Your task to perform on an android device: turn on location history Image 0: 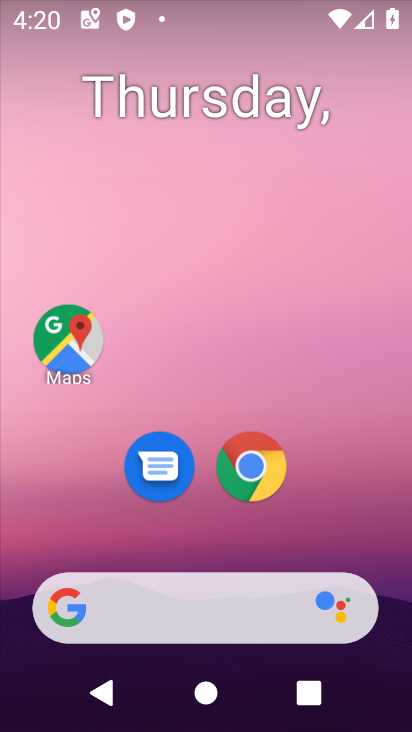
Step 0: drag from (370, 479) to (295, 15)
Your task to perform on an android device: turn on location history Image 1: 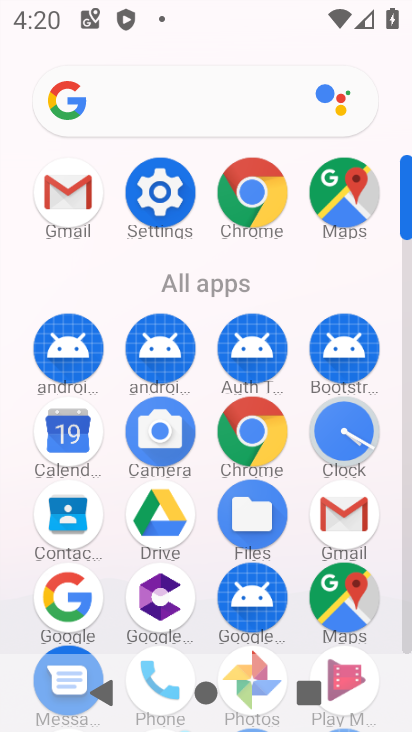
Step 1: click (178, 177)
Your task to perform on an android device: turn on location history Image 2: 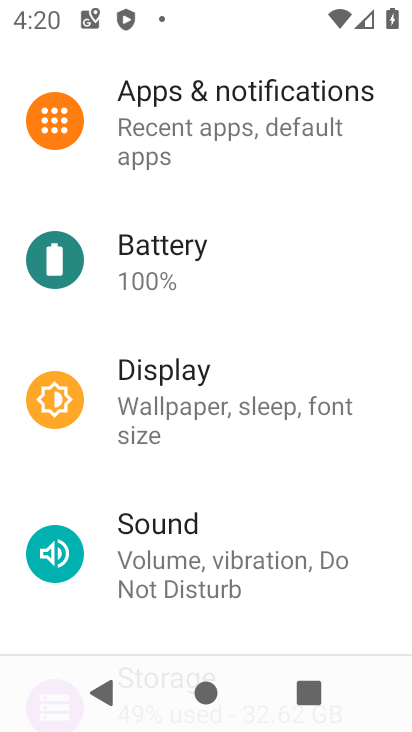
Step 2: drag from (219, 560) to (266, 140)
Your task to perform on an android device: turn on location history Image 3: 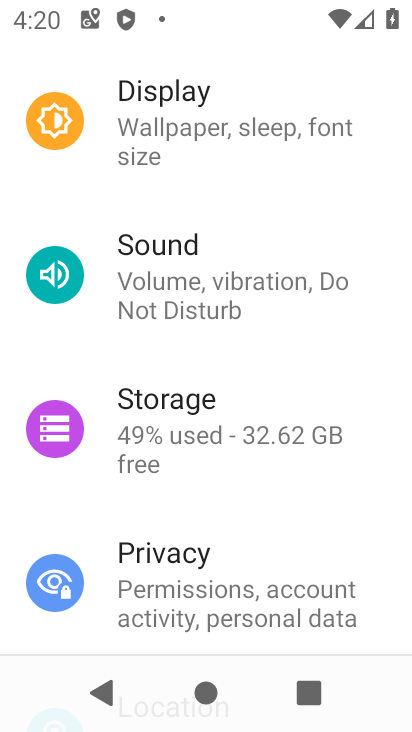
Step 3: drag from (247, 548) to (231, 179)
Your task to perform on an android device: turn on location history Image 4: 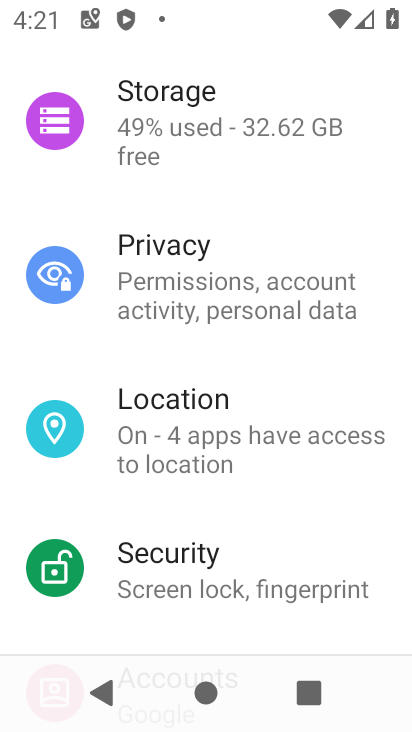
Step 4: click (204, 410)
Your task to perform on an android device: turn on location history Image 5: 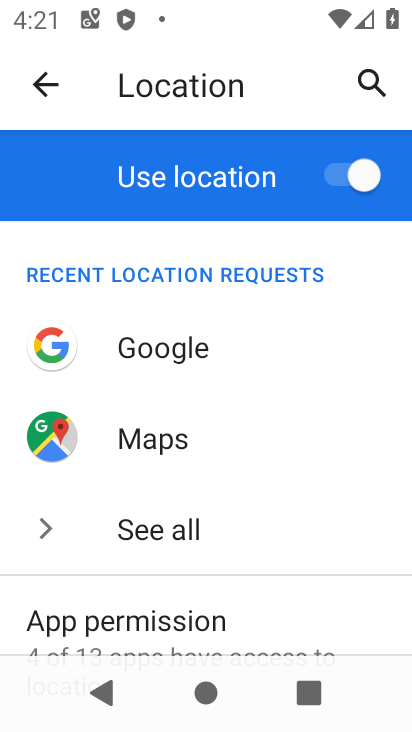
Step 5: drag from (188, 534) to (164, 218)
Your task to perform on an android device: turn on location history Image 6: 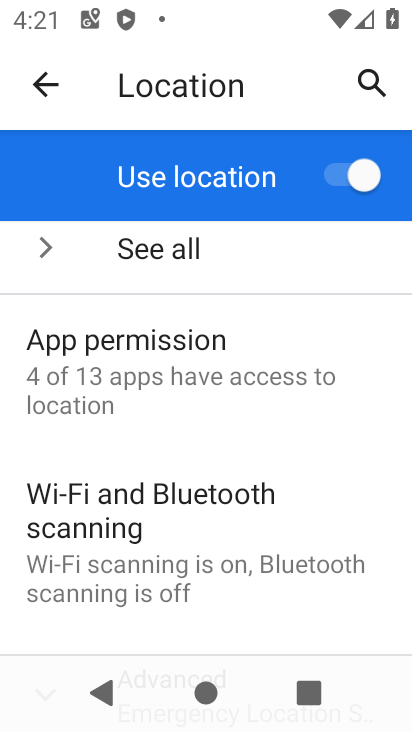
Step 6: drag from (239, 536) to (181, 202)
Your task to perform on an android device: turn on location history Image 7: 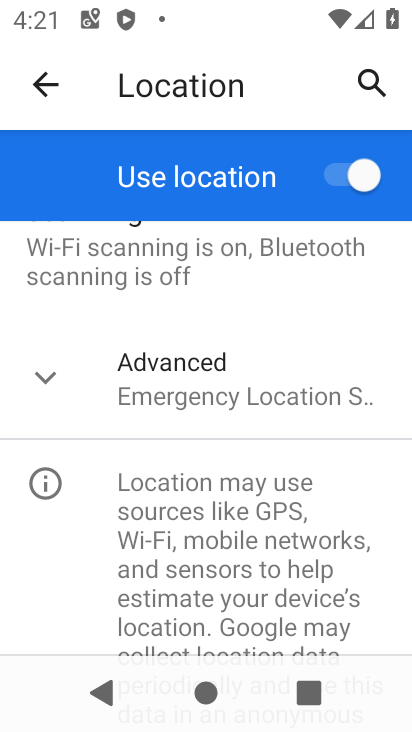
Step 7: drag from (253, 382) to (297, 645)
Your task to perform on an android device: turn on location history Image 8: 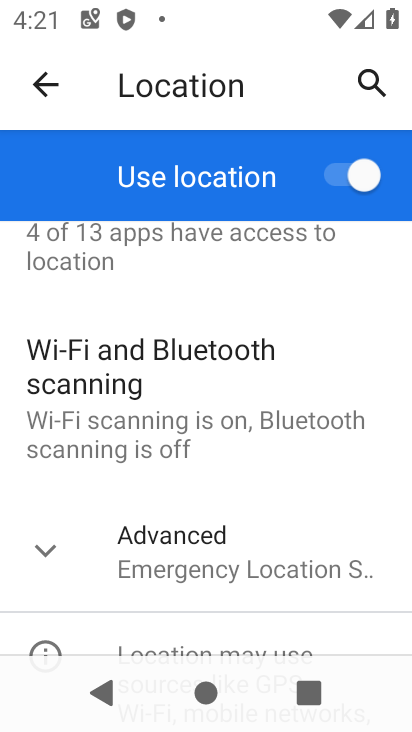
Step 8: drag from (200, 341) to (241, 628)
Your task to perform on an android device: turn on location history Image 9: 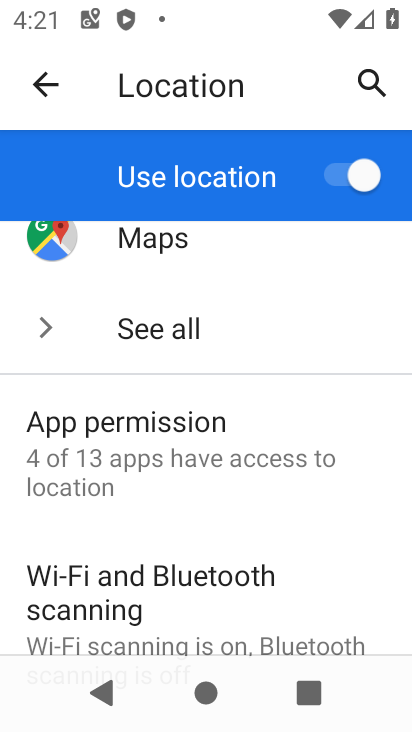
Step 9: drag from (223, 342) to (313, 652)
Your task to perform on an android device: turn on location history Image 10: 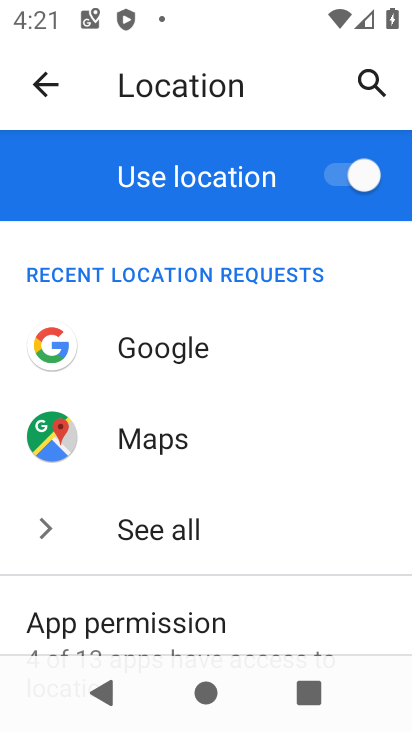
Step 10: drag from (245, 574) to (165, 154)
Your task to perform on an android device: turn on location history Image 11: 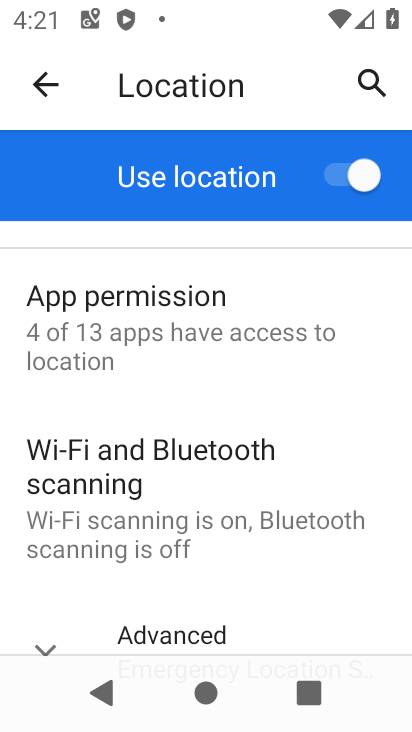
Step 11: drag from (253, 521) to (151, 201)
Your task to perform on an android device: turn on location history Image 12: 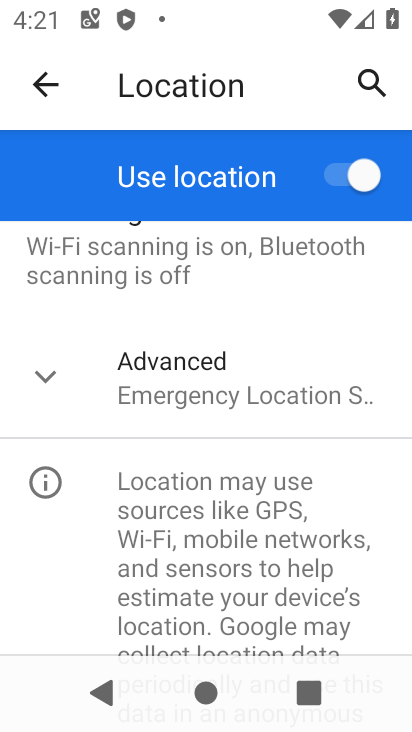
Step 12: click (212, 409)
Your task to perform on an android device: turn on location history Image 13: 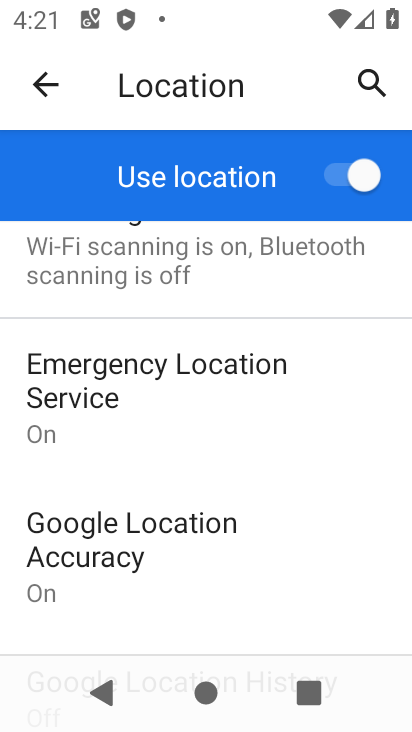
Step 13: drag from (125, 582) to (138, 299)
Your task to perform on an android device: turn on location history Image 14: 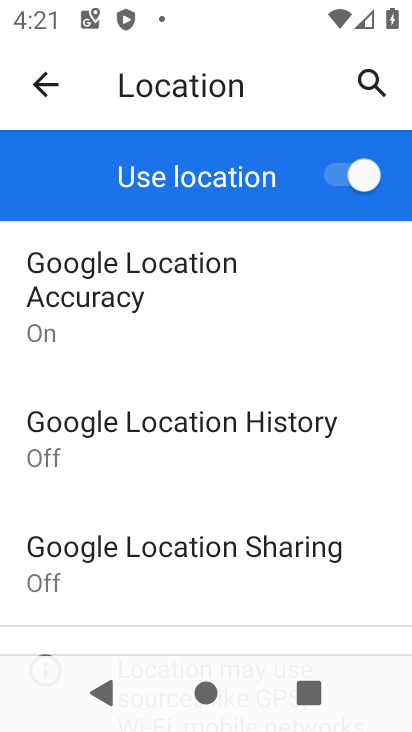
Step 14: click (202, 426)
Your task to perform on an android device: turn on location history Image 15: 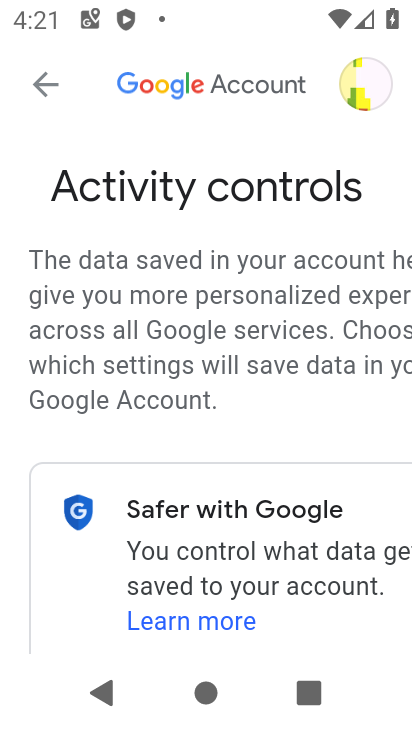
Step 15: task complete